Your task to perform on an android device: Open the calendar and show me this week's events? Image 0: 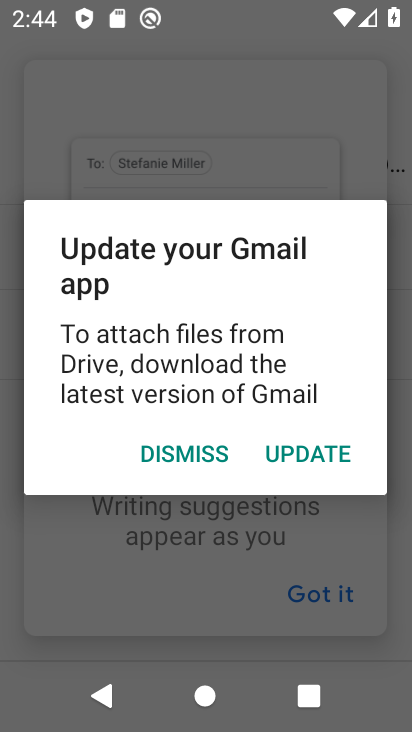
Step 0: press home button
Your task to perform on an android device: Open the calendar and show me this week's events? Image 1: 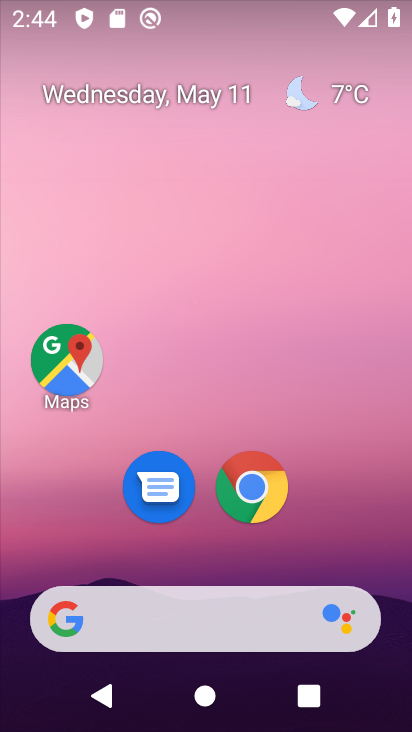
Step 1: drag from (205, 623) to (205, 73)
Your task to perform on an android device: Open the calendar and show me this week's events? Image 2: 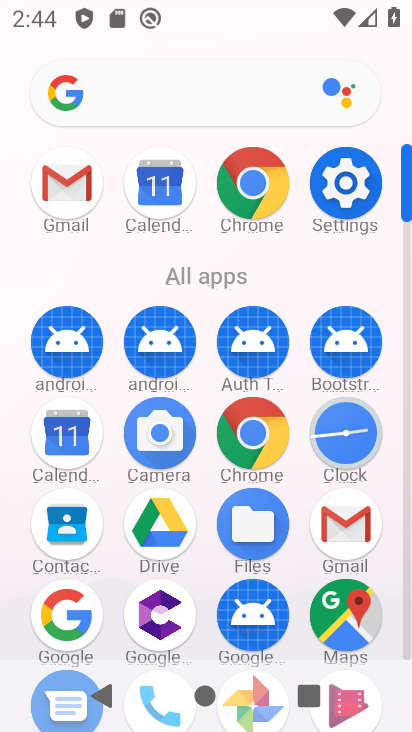
Step 2: click (74, 440)
Your task to perform on an android device: Open the calendar and show me this week's events? Image 3: 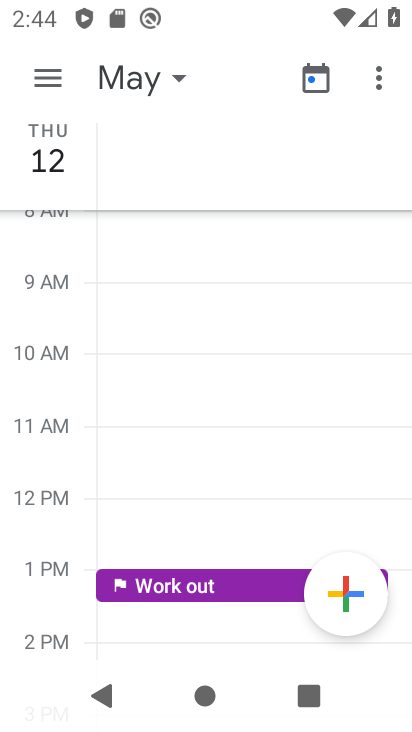
Step 3: click (176, 78)
Your task to perform on an android device: Open the calendar and show me this week's events? Image 4: 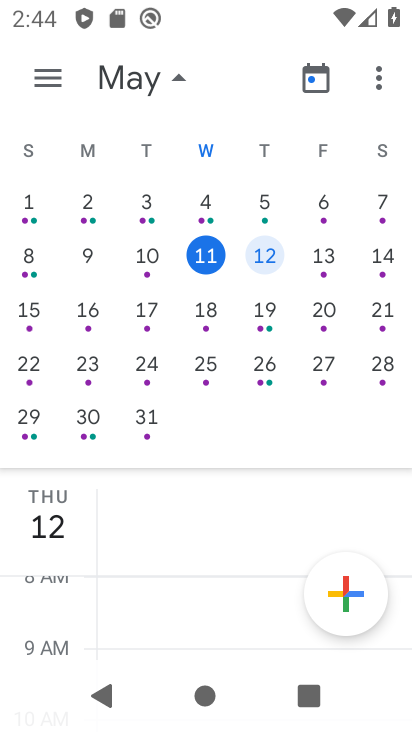
Step 4: click (48, 68)
Your task to perform on an android device: Open the calendar and show me this week's events? Image 5: 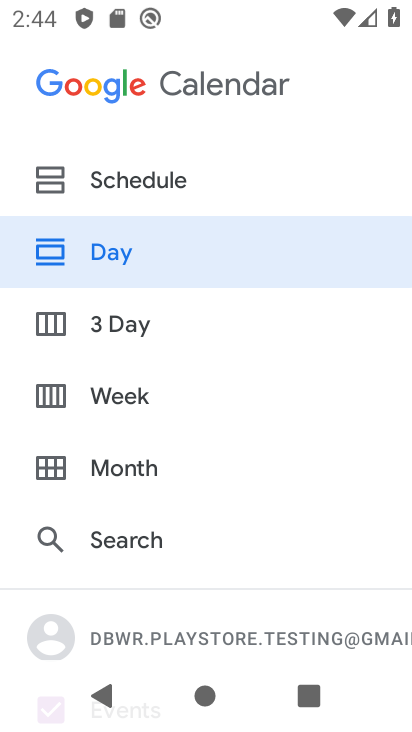
Step 5: click (123, 394)
Your task to perform on an android device: Open the calendar and show me this week's events? Image 6: 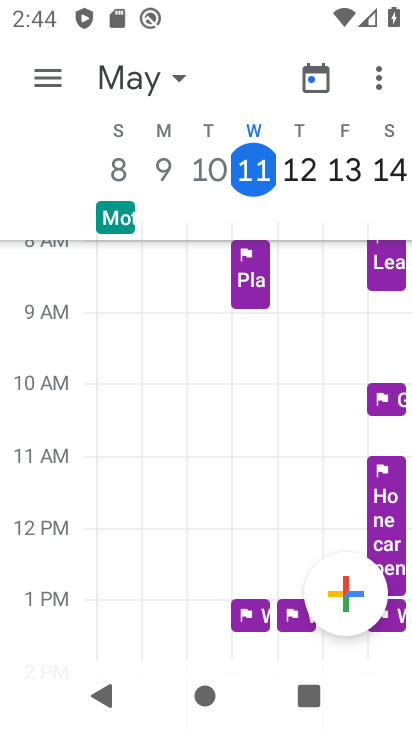
Step 6: task complete